Your task to perform on an android device: Search for sushi restaurants on Maps Image 0: 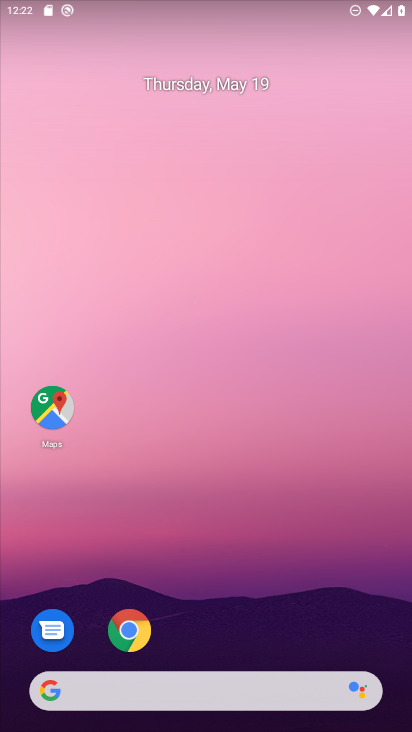
Step 0: drag from (191, 592) to (163, 29)
Your task to perform on an android device: Search for sushi restaurants on Maps Image 1: 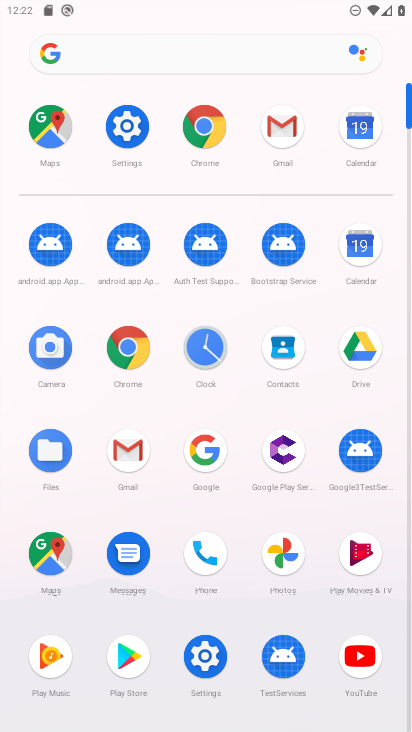
Step 1: click (42, 560)
Your task to perform on an android device: Search for sushi restaurants on Maps Image 2: 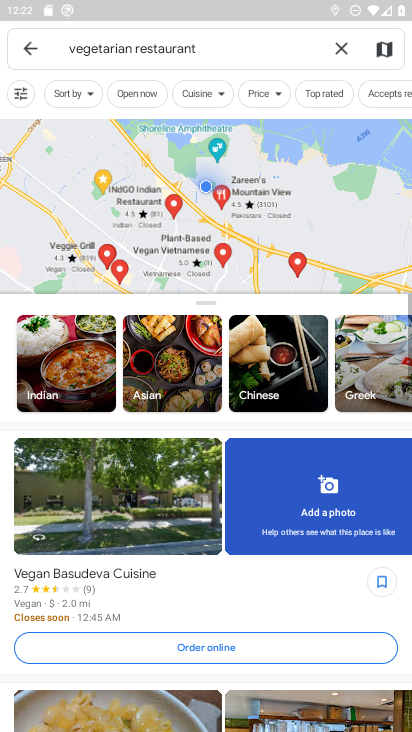
Step 2: click (332, 45)
Your task to perform on an android device: Search for sushi restaurants on Maps Image 3: 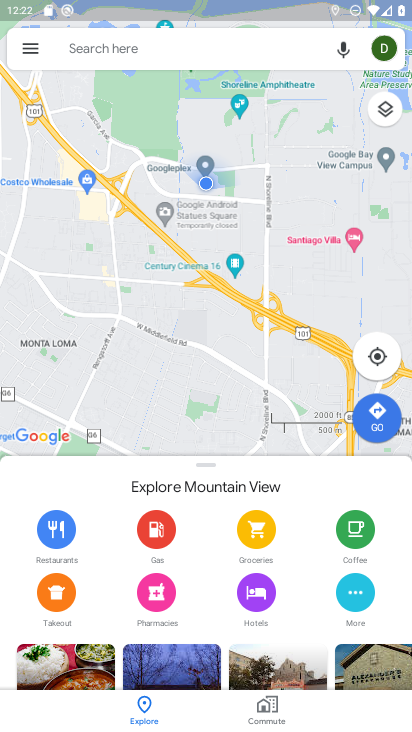
Step 3: click (130, 47)
Your task to perform on an android device: Search for sushi restaurants on Maps Image 4: 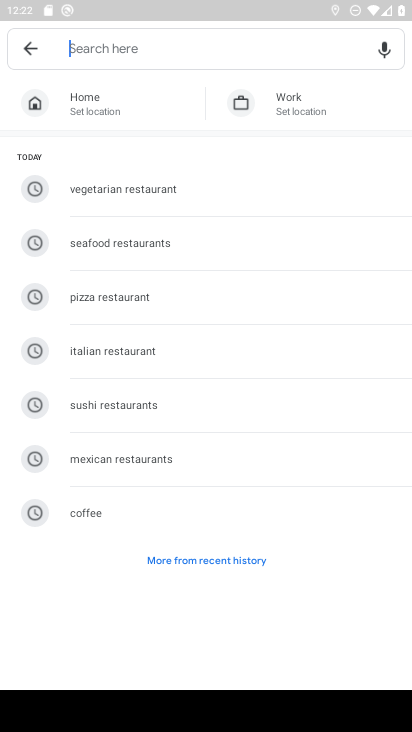
Step 4: click (123, 403)
Your task to perform on an android device: Search for sushi restaurants on Maps Image 5: 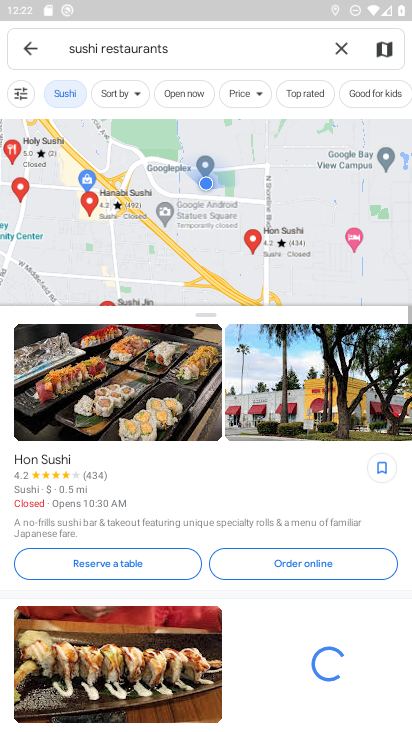
Step 5: task complete